Your task to perform on an android device: delete browsing data in the chrome app Image 0: 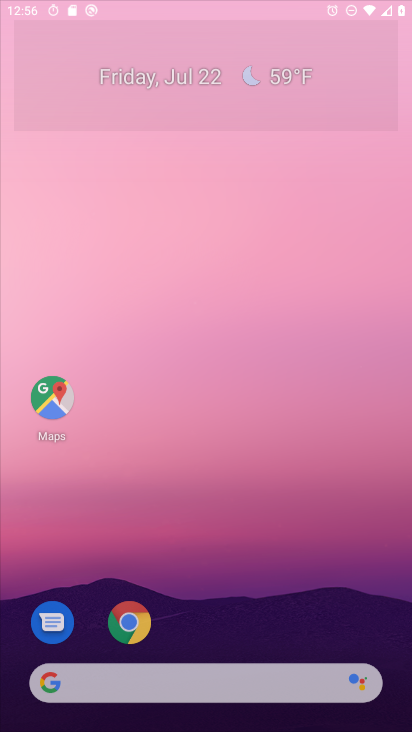
Step 0: press home button
Your task to perform on an android device: delete browsing data in the chrome app Image 1: 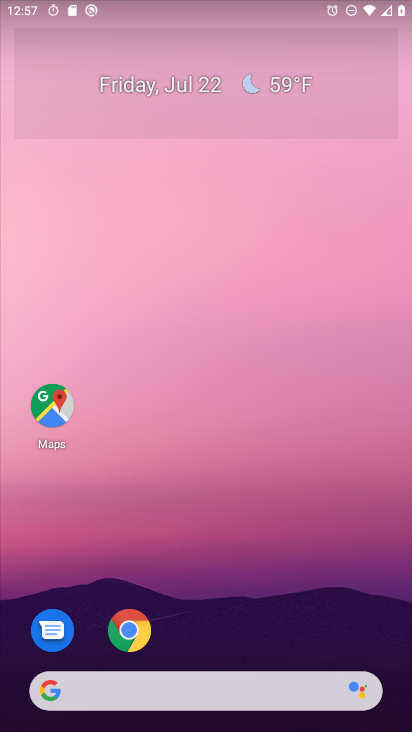
Step 1: drag from (234, 641) to (248, 61)
Your task to perform on an android device: delete browsing data in the chrome app Image 2: 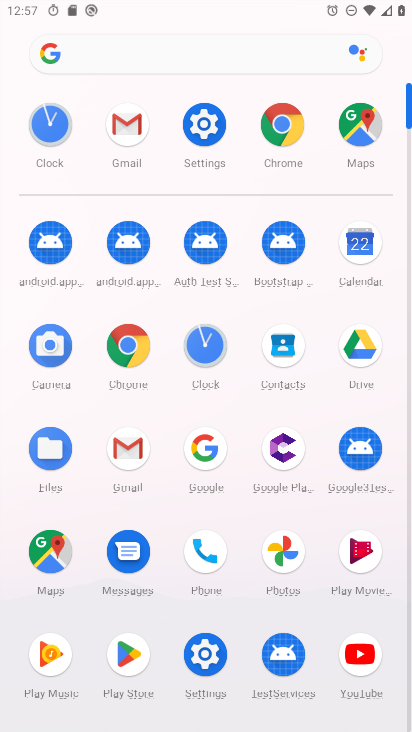
Step 2: click (283, 130)
Your task to perform on an android device: delete browsing data in the chrome app Image 3: 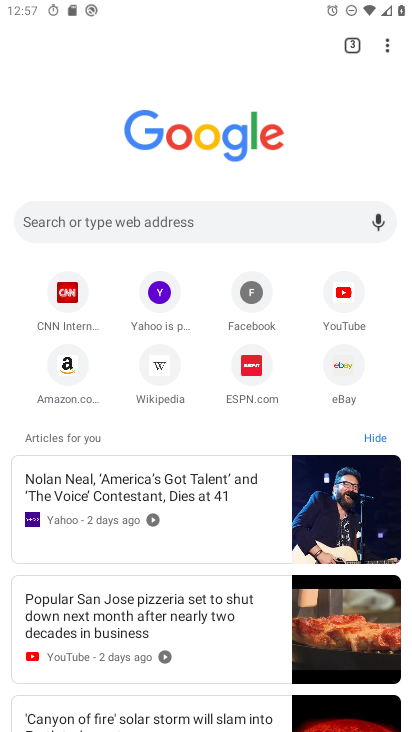
Step 3: drag from (387, 47) to (221, 322)
Your task to perform on an android device: delete browsing data in the chrome app Image 4: 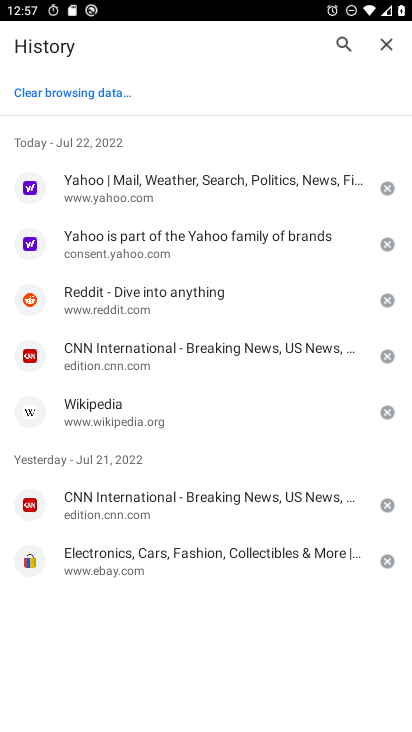
Step 4: click (47, 95)
Your task to perform on an android device: delete browsing data in the chrome app Image 5: 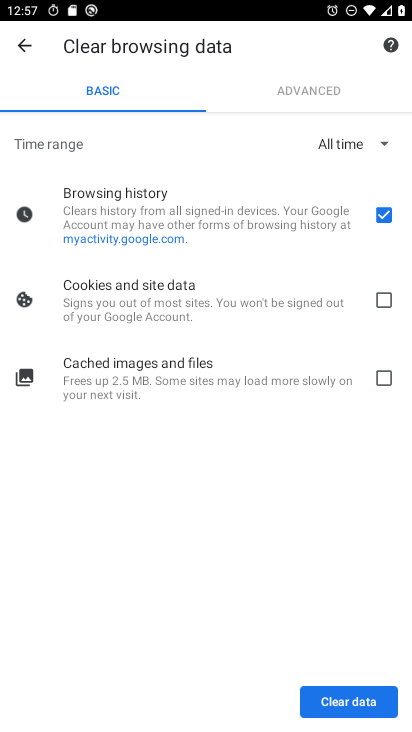
Step 5: click (324, 704)
Your task to perform on an android device: delete browsing data in the chrome app Image 6: 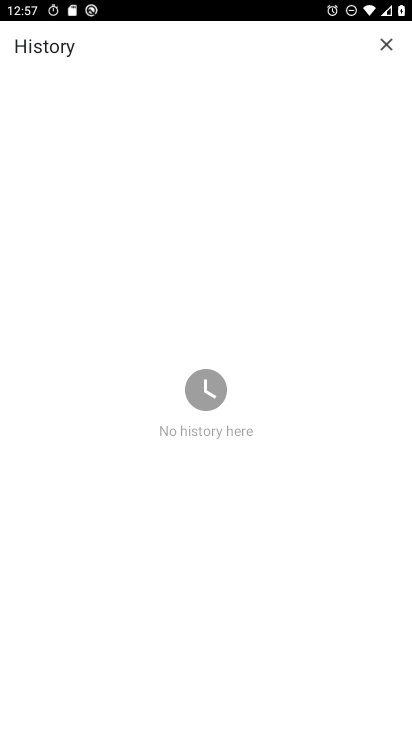
Step 6: task complete